Your task to perform on an android device: check google app version Image 0: 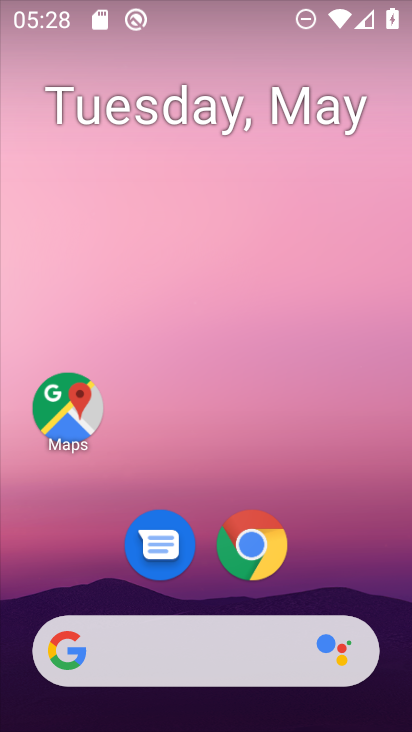
Step 0: drag from (340, 589) to (287, 43)
Your task to perform on an android device: check google app version Image 1: 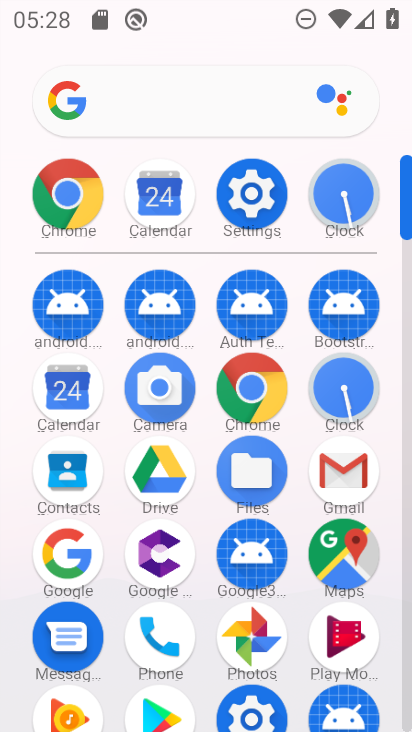
Step 1: drag from (5, 466) to (27, 239)
Your task to perform on an android device: check google app version Image 2: 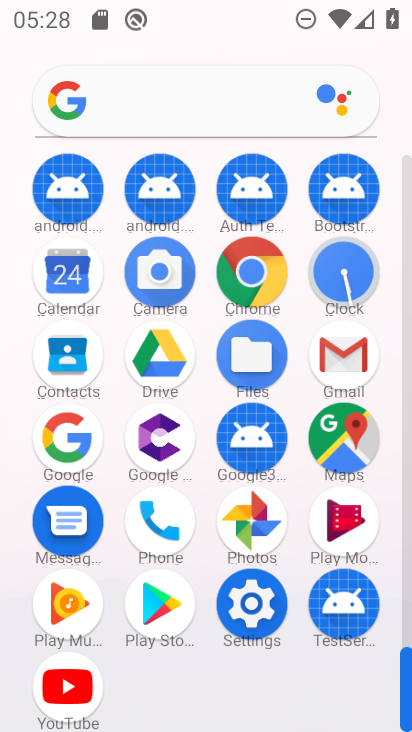
Step 2: drag from (18, 276) to (4, 530)
Your task to perform on an android device: check google app version Image 3: 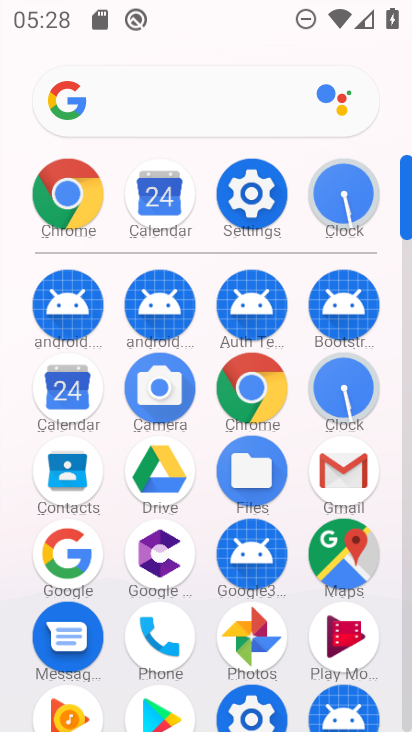
Step 3: click (64, 557)
Your task to perform on an android device: check google app version Image 4: 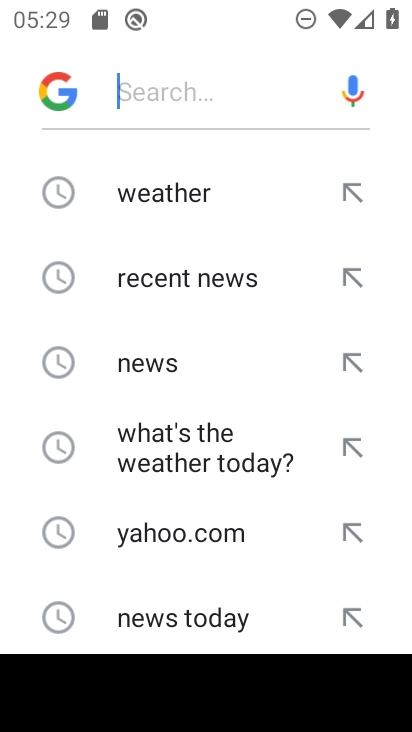
Step 4: press back button
Your task to perform on an android device: check google app version Image 5: 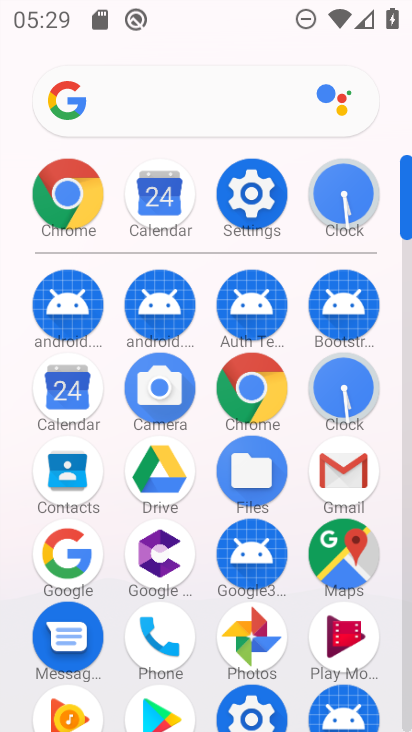
Step 5: click (62, 549)
Your task to perform on an android device: check google app version Image 6: 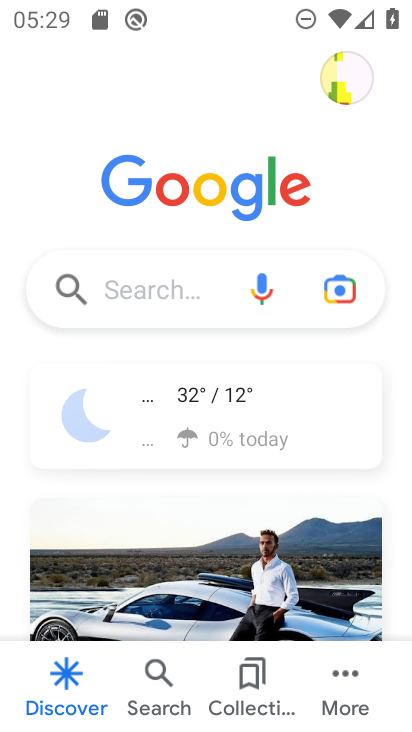
Step 6: click (343, 668)
Your task to perform on an android device: check google app version Image 7: 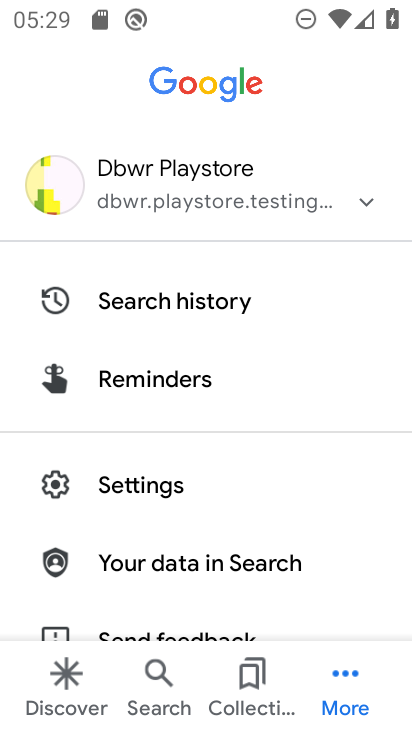
Step 7: click (350, 675)
Your task to perform on an android device: check google app version Image 8: 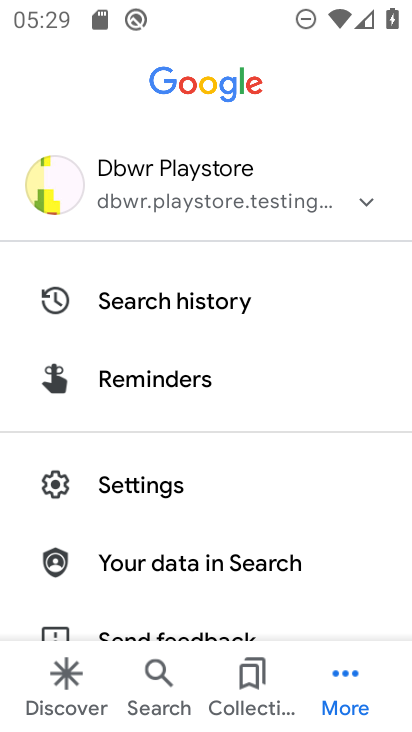
Step 8: click (148, 479)
Your task to perform on an android device: check google app version Image 9: 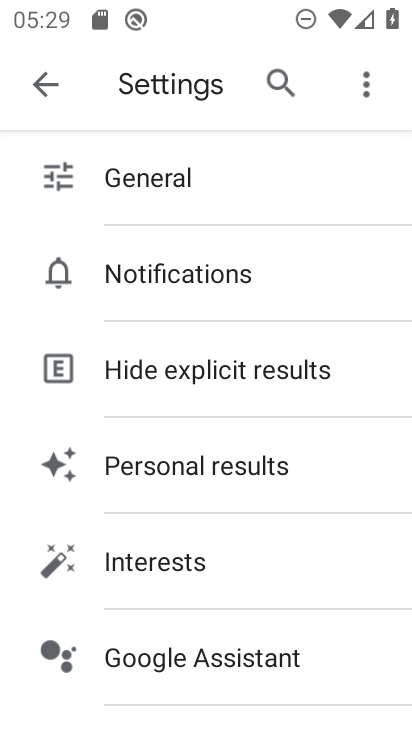
Step 9: drag from (263, 577) to (303, 175)
Your task to perform on an android device: check google app version Image 10: 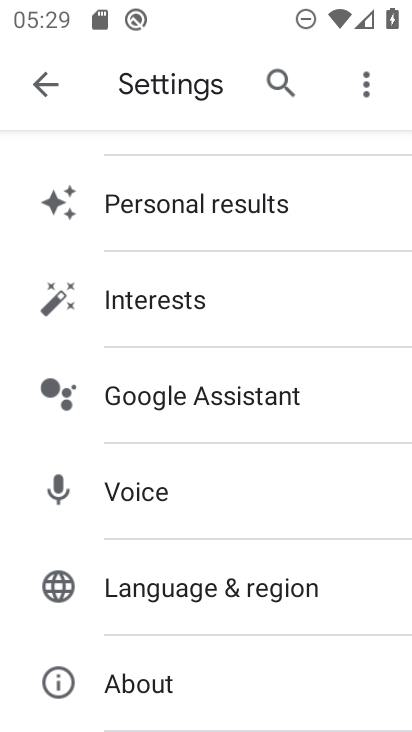
Step 10: click (159, 670)
Your task to perform on an android device: check google app version Image 11: 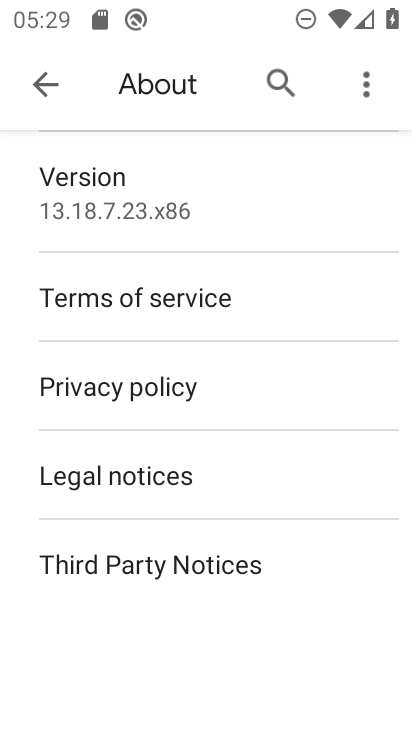
Step 11: task complete